Your task to perform on an android device: Go to Google Image 0: 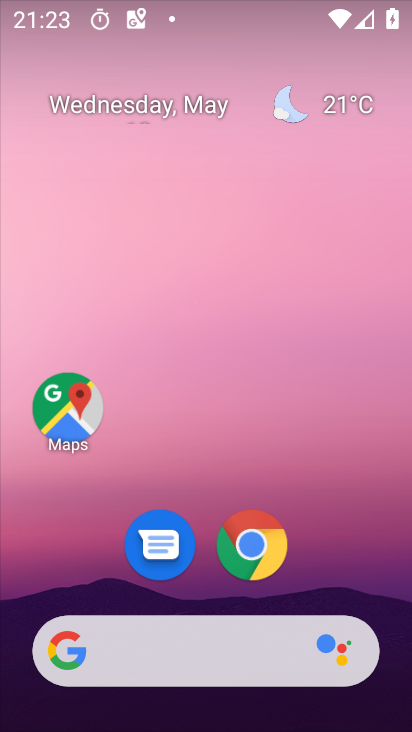
Step 0: drag from (313, 597) to (242, 12)
Your task to perform on an android device: Go to Google Image 1: 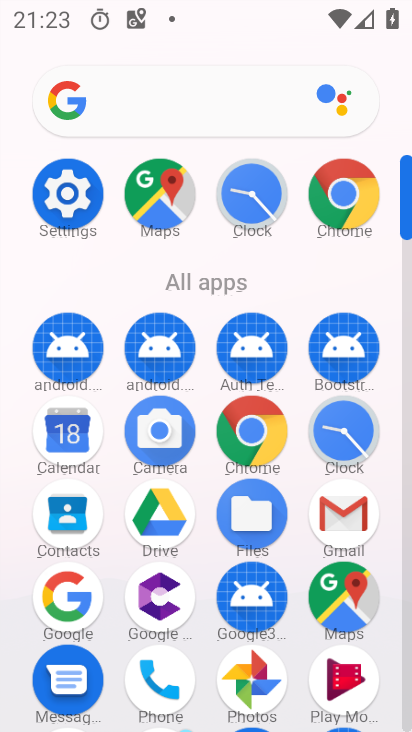
Step 1: click (63, 600)
Your task to perform on an android device: Go to Google Image 2: 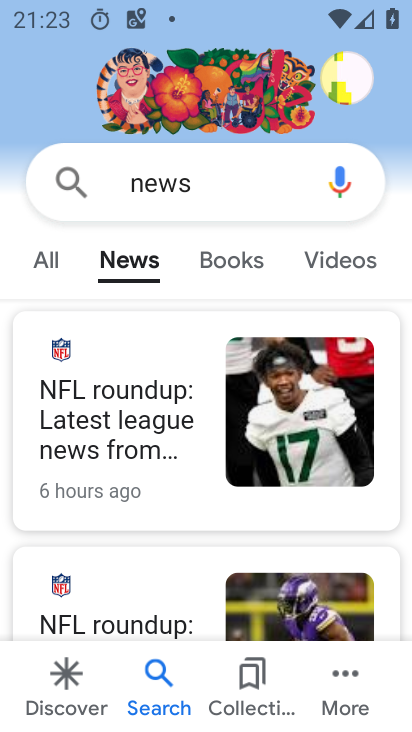
Step 2: task complete